Your task to perform on an android device: Open the calendar and show me this week's events? Image 0: 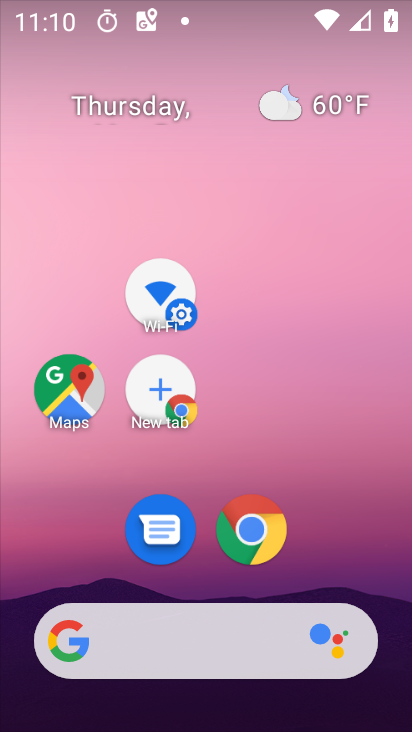
Step 0: drag from (333, 501) to (148, 138)
Your task to perform on an android device: Open the calendar and show me this week's events? Image 1: 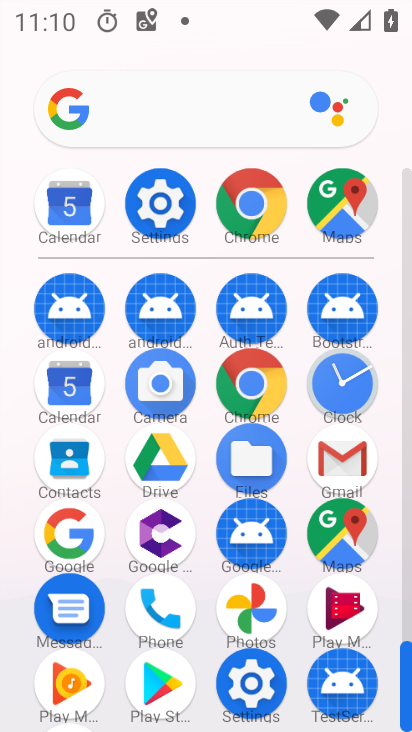
Step 1: click (74, 385)
Your task to perform on an android device: Open the calendar and show me this week's events? Image 2: 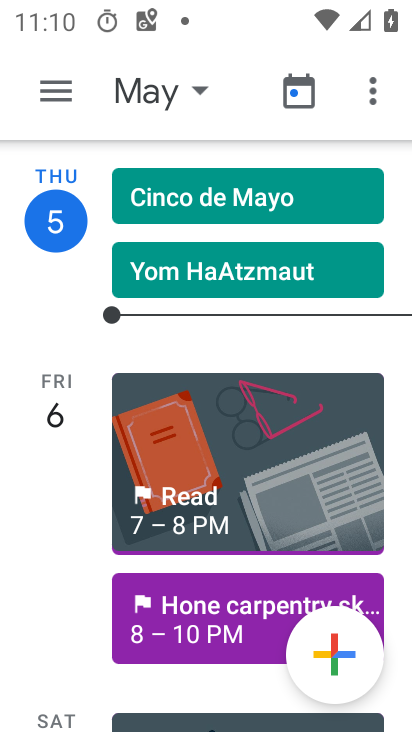
Step 2: click (193, 98)
Your task to perform on an android device: Open the calendar and show me this week's events? Image 3: 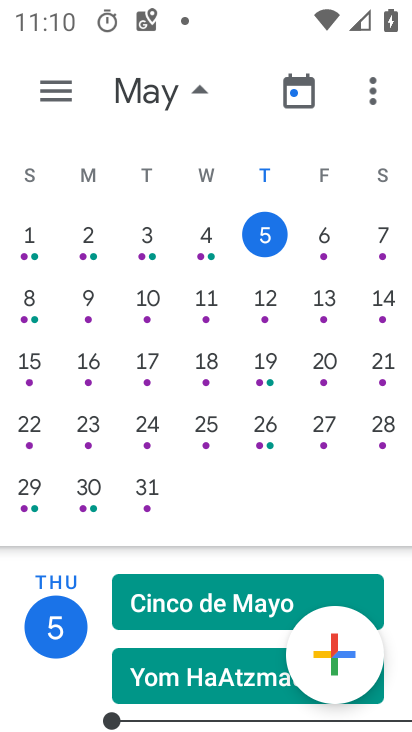
Step 3: drag from (185, 616) to (56, 193)
Your task to perform on an android device: Open the calendar and show me this week's events? Image 4: 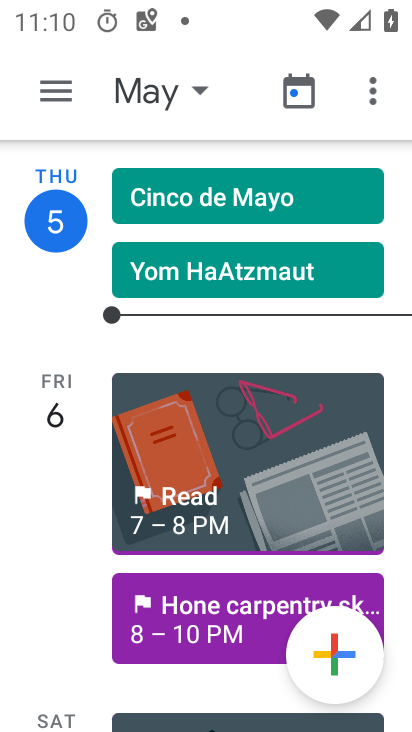
Step 4: drag from (165, 547) to (140, 264)
Your task to perform on an android device: Open the calendar and show me this week's events? Image 5: 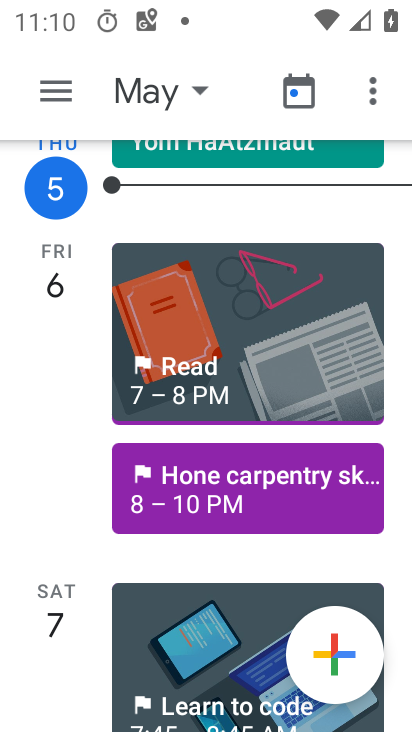
Step 5: drag from (227, 502) to (167, 175)
Your task to perform on an android device: Open the calendar and show me this week's events? Image 6: 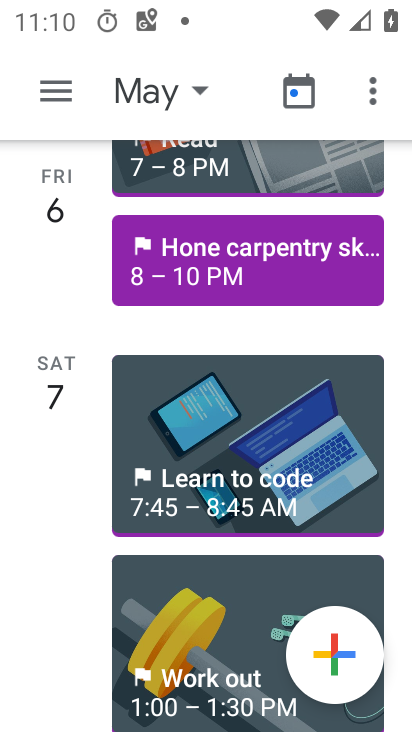
Step 6: drag from (242, 513) to (150, 155)
Your task to perform on an android device: Open the calendar and show me this week's events? Image 7: 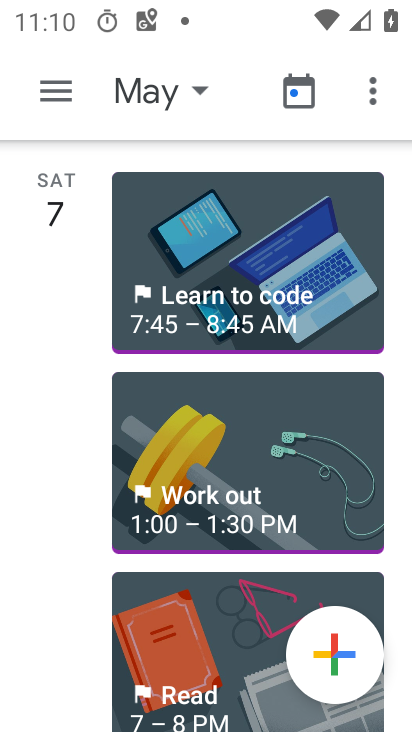
Step 7: drag from (256, 609) to (257, 166)
Your task to perform on an android device: Open the calendar and show me this week's events? Image 8: 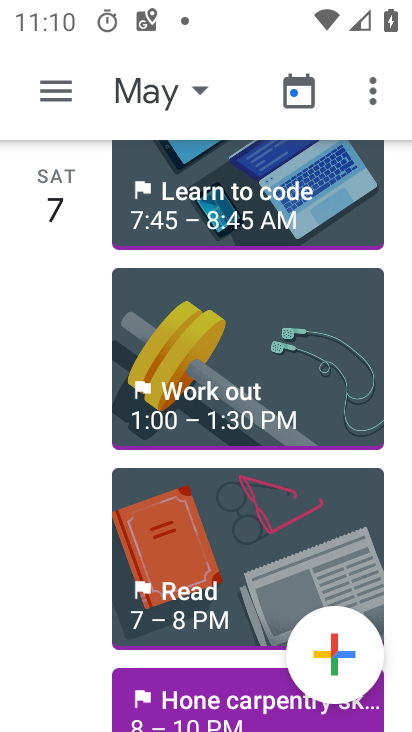
Step 8: drag from (289, 527) to (229, 154)
Your task to perform on an android device: Open the calendar and show me this week's events? Image 9: 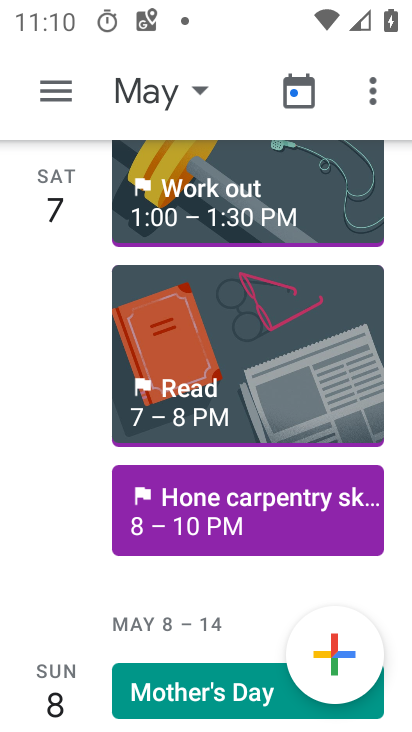
Step 9: drag from (250, 524) to (177, 76)
Your task to perform on an android device: Open the calendar and show me this week's events? Image 10: 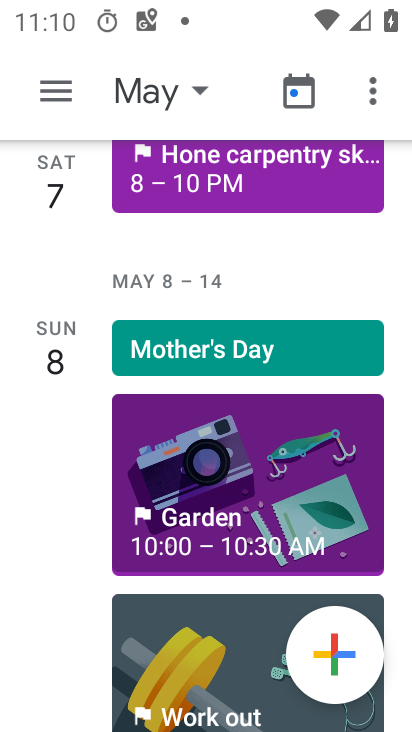
Step 10: drag from (245, 482) to (199, 174)
Your task to perform on an android device: Open the calendar and show me this week's events? Image 11: 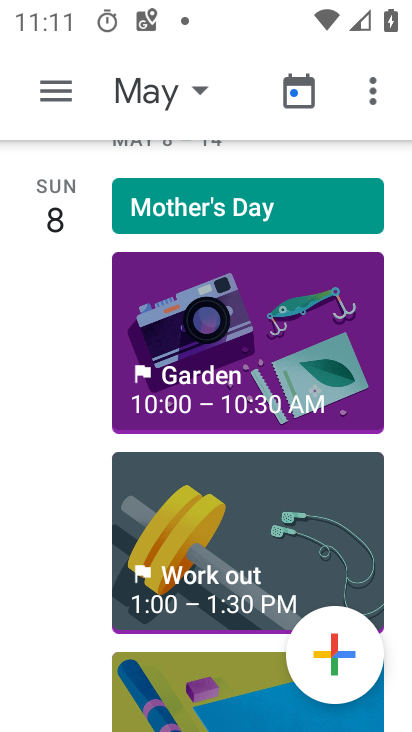
Step 11: click (154, 209)
Your task to perform on an android device: Open the calendar and show me this week's events? Image 12: 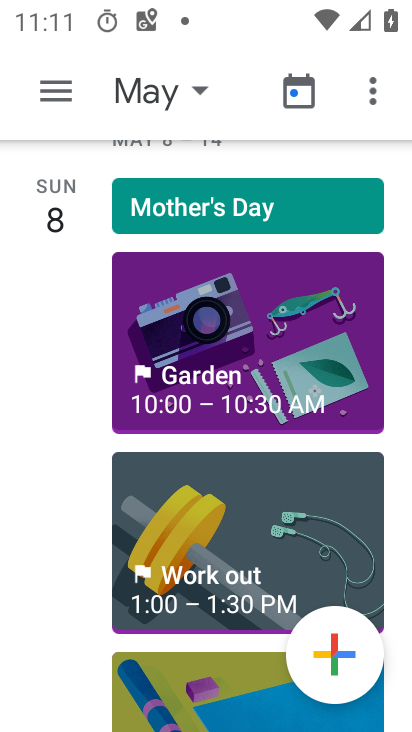
Step 12: click (159, 213)
Your task to perform on an android device: Open the calendar and show me this week's events? Image 13: 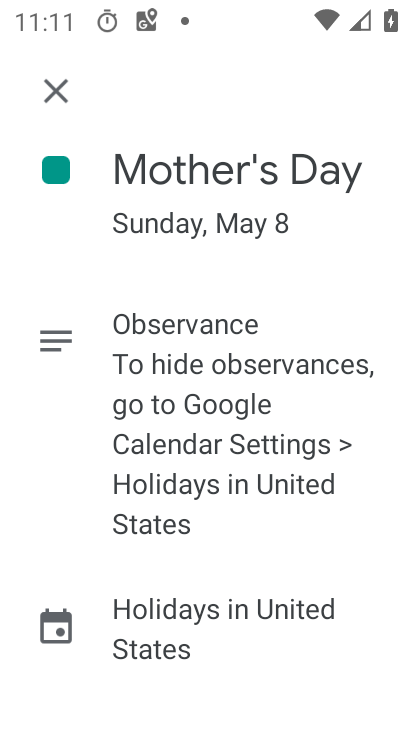
Step 13: click (67, 94)
Your task to perform on an android device: Open the calendar and show me this week's events? Image 14: 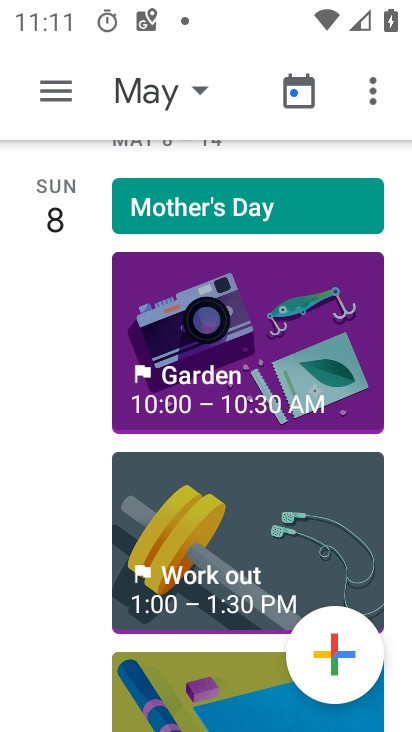
Step 14: task complete